Your task to perform on an android device: Open network settings Image 0: 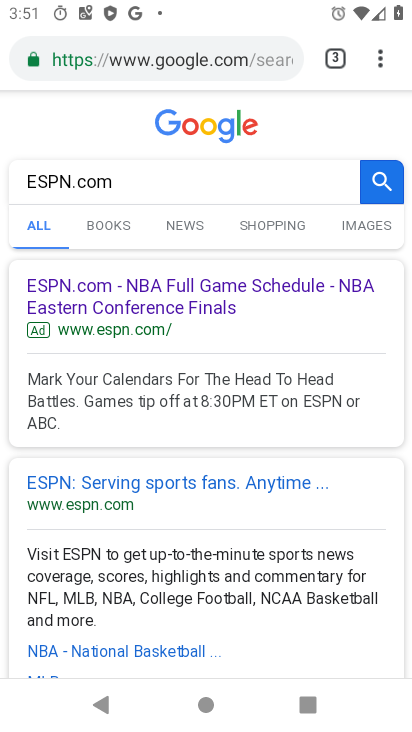
Step 0: press home button
Your task to perform on an android device: Open network settings Image 1: 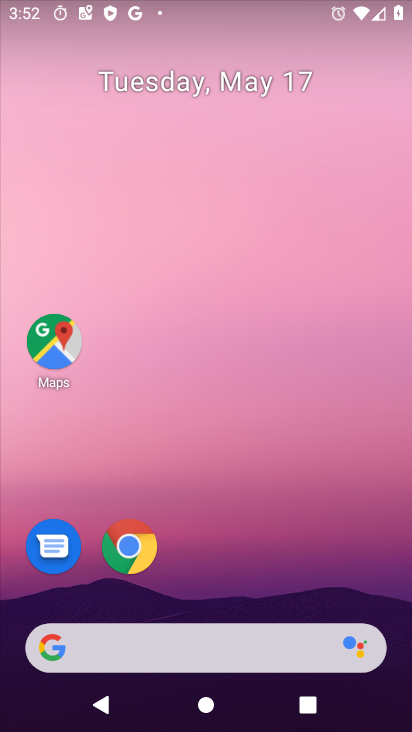
Step 1: drag from (405, 681) to (410, 175)
Your task to perform on an android device: Open network settings Image 2: 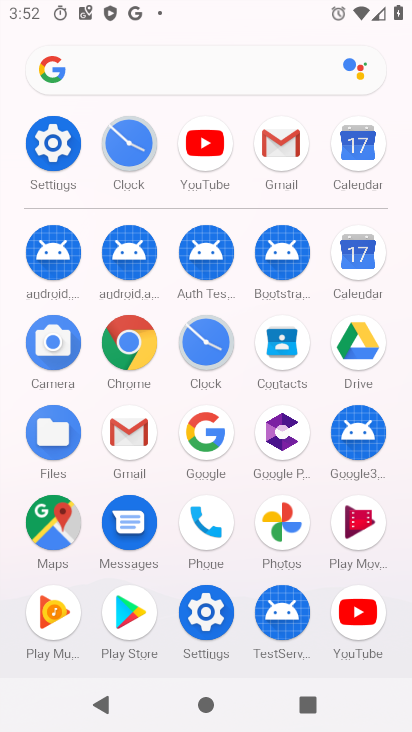
Step 2: click (71, 153)
Your task to perform on an android device: Open network settings Image 3: 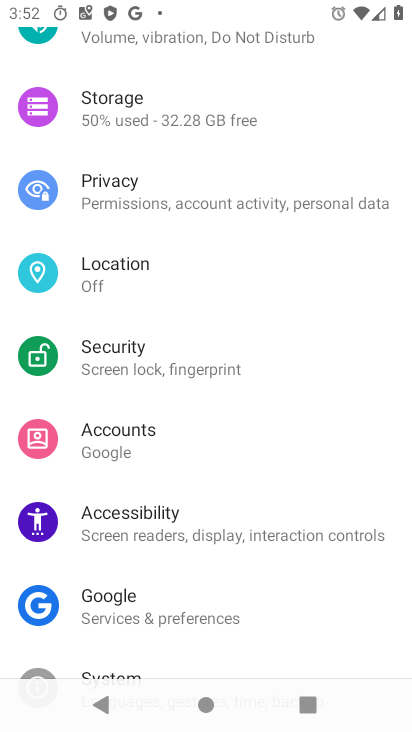
Step 3: drag from (282, 138) to (295, 437)
Your task to perform on an android device: Open network settings Image 4: 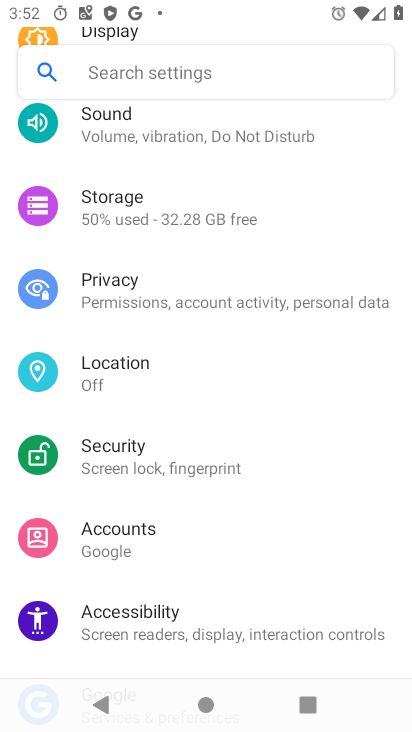
Step 4: drag from (292, 145) to (349, 580)
Your task to perform on an android device: Open network settings Image 5: 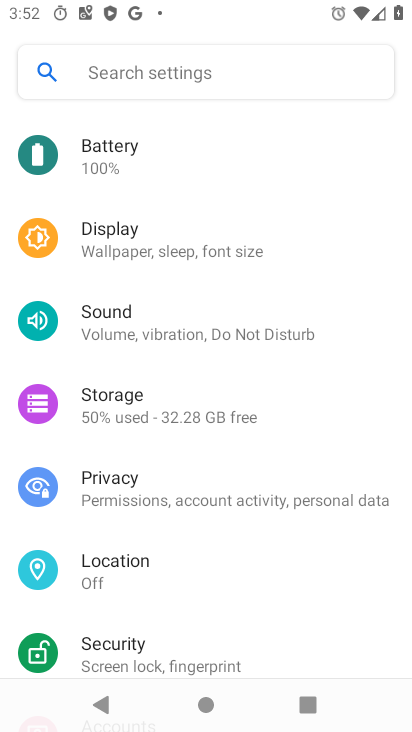
Step 5: drag from (346, 314) to (396, 605)
Your task to perform on an android device: Open network settings Image 6: 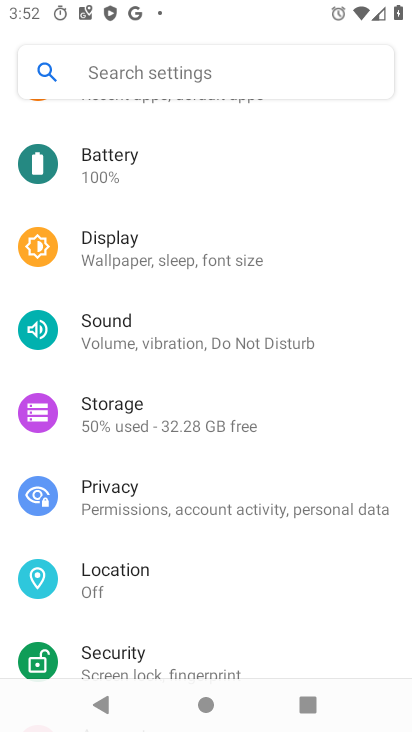
Step 6: drag from (324, 300) to (340, 719)
Your task to perform on an android device: Open network settings Image 7: 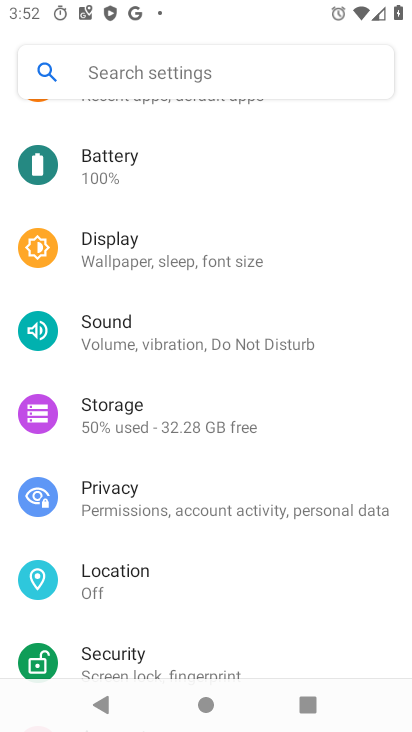
Step 7: drag from (324, 191) to (339, 425)
Your task to perform on an android device: Open network settings Image 8: 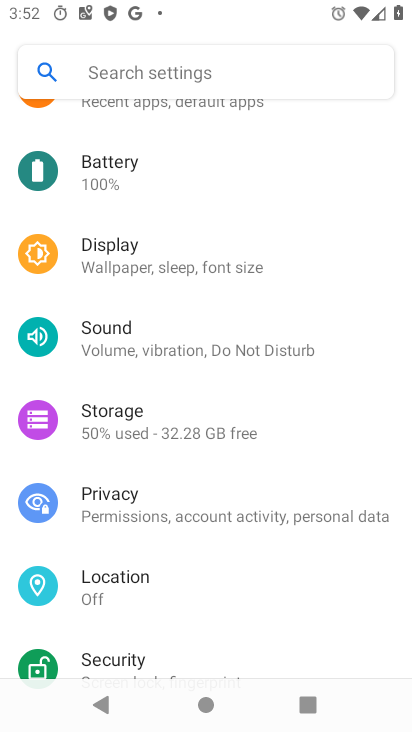
Step 8: drag from (307, 232) to (319, 416)
Your task to perform on an android device: Open network settings Image 9: 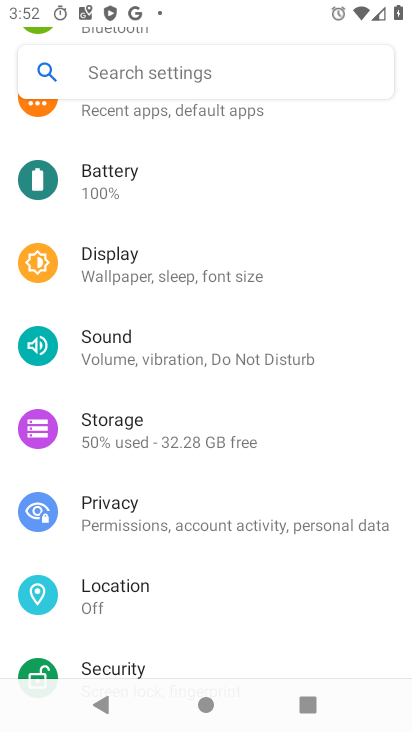
Step 9: drag from (305, 150) to (336, 537)
Your task to perform on an android device: Open network settings Image 10: 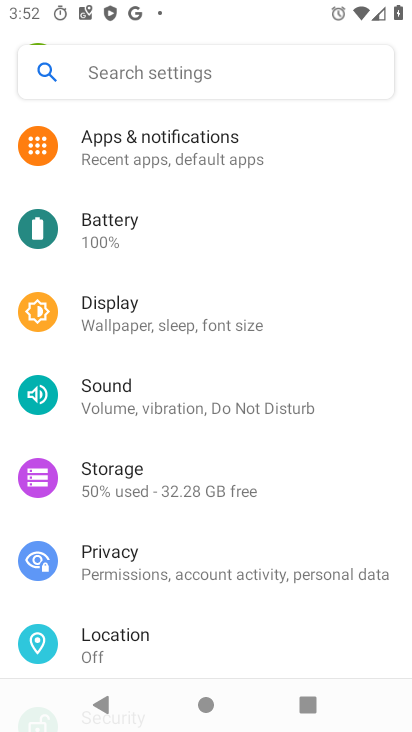
Step 10: drag from (317, 191) to (370, 533)
Your task to perform on an android device: Open network settings Image 11: 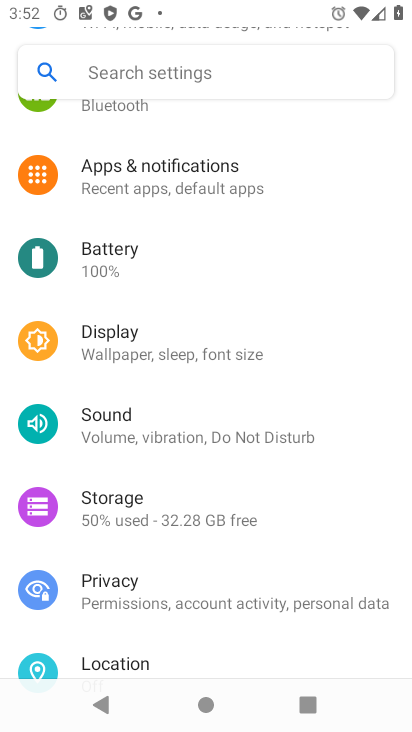
Step 11: drag from (366, 286) to (377, 415)
Your task to perform on an android device: Open network settings Image 12: 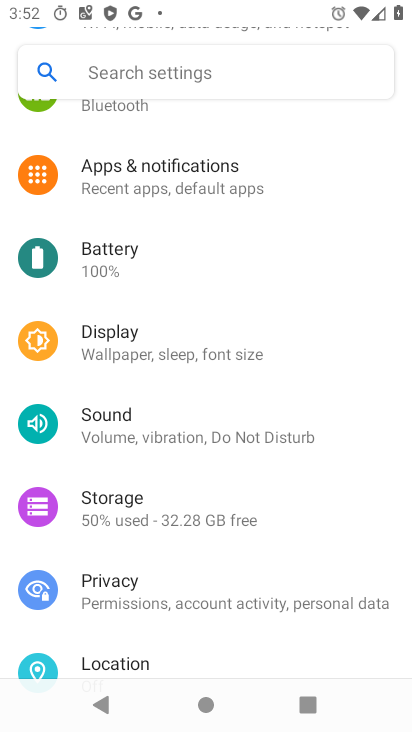
Step 12: drag from (330, 234) to (360, 441)
Your task to perform on an android device: Open network settings Image 13: 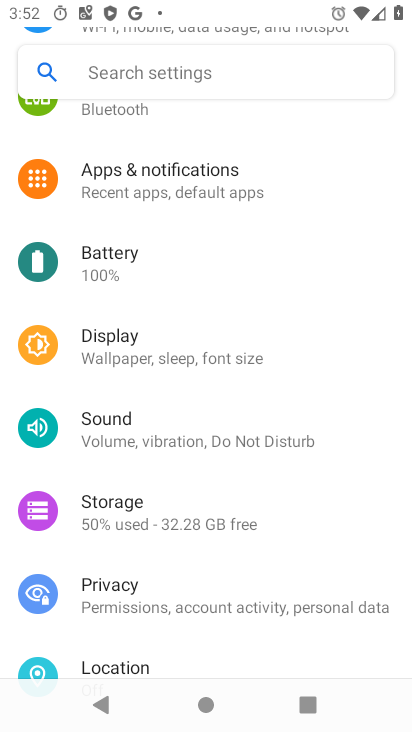
Step 13: drag from (332, 276) to (374, 463)
Your task to perform on an android device: Open network settings Image 14: 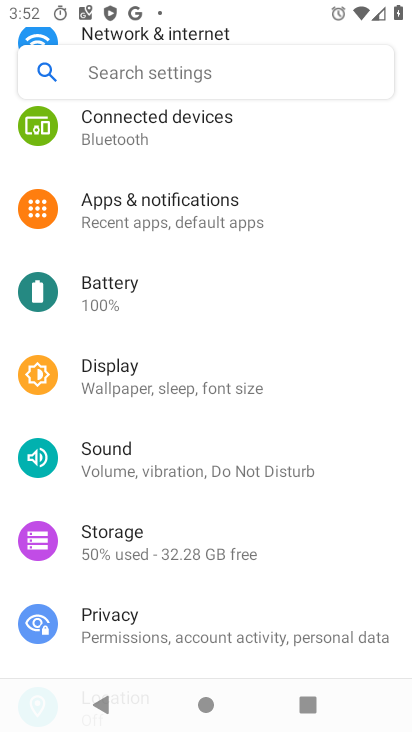
Step 14: click (132, 35)
Your task to perform on an android device: Open network settings Image 15: 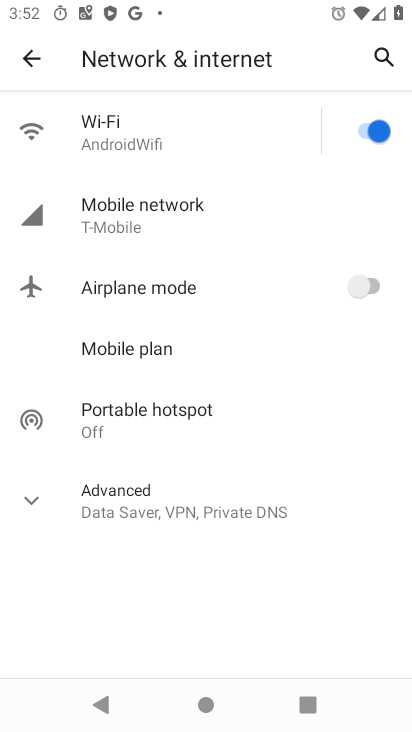
Step 15: click (153, 203)
Your task to perform on an android device: Open network settings Image 16: 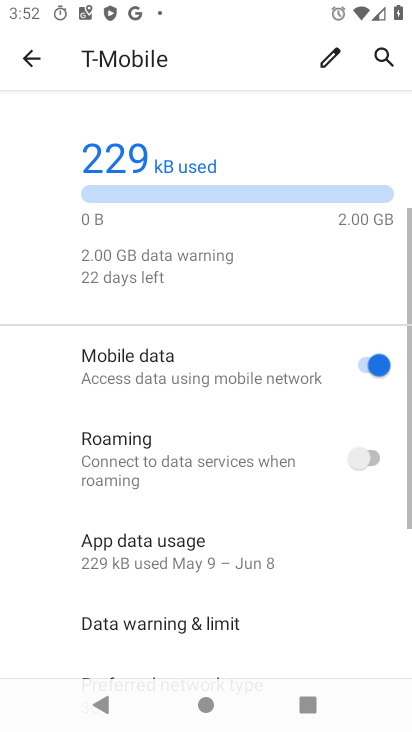
Step 16: task complete